Your task to perform on an android device: Go to Amazon Image 0: 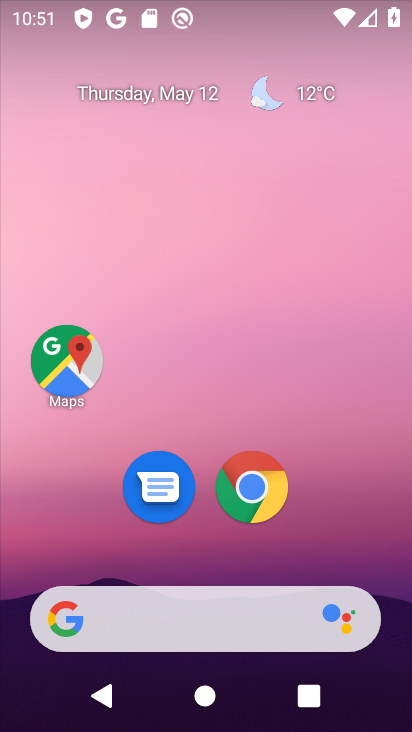
Step 0: click (258, 492)
Your task to perform on an android device: Go to Amazon Image 1: 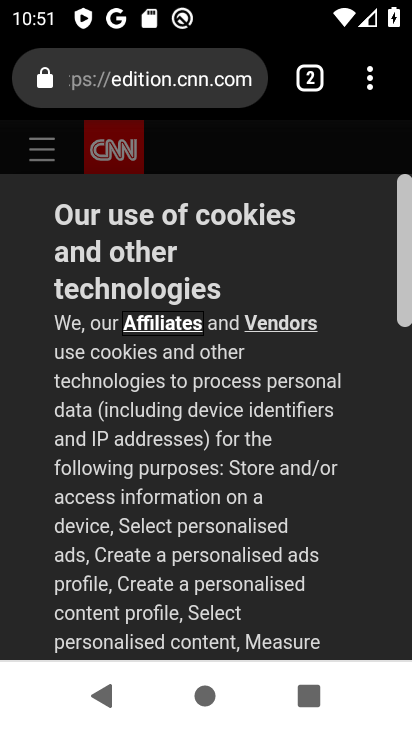
Step 1: click (134, 88)
Your task to perform on an android device: Go to Amazon Image 2: 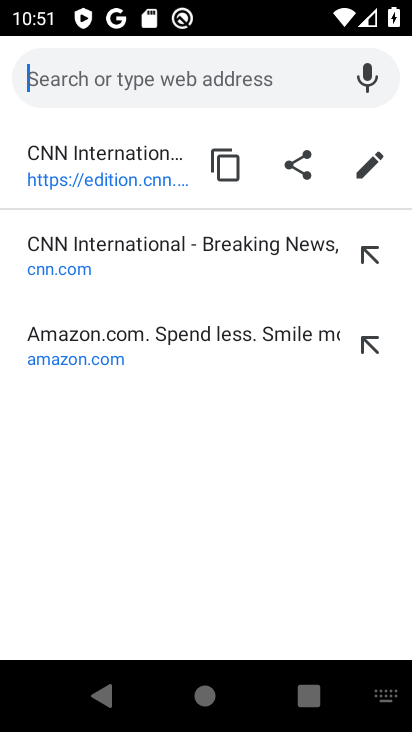
Step 2: click (68, 337)
Your task to perform on an android device: Go to Amazon Image 3: 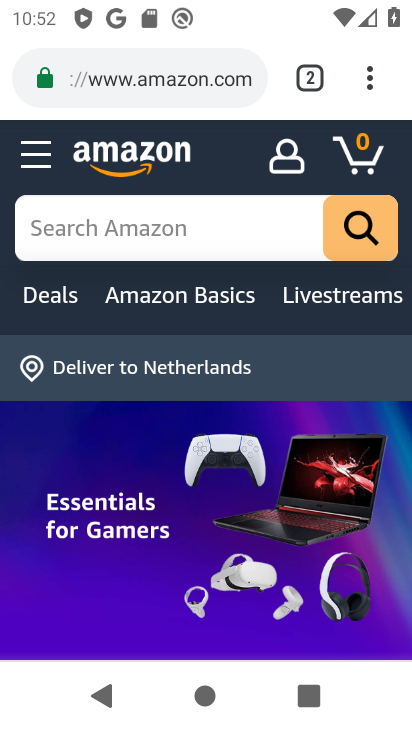
Step 3: task complete